Your task to perform on an android device: Open Chrome and go to settings Image 0: 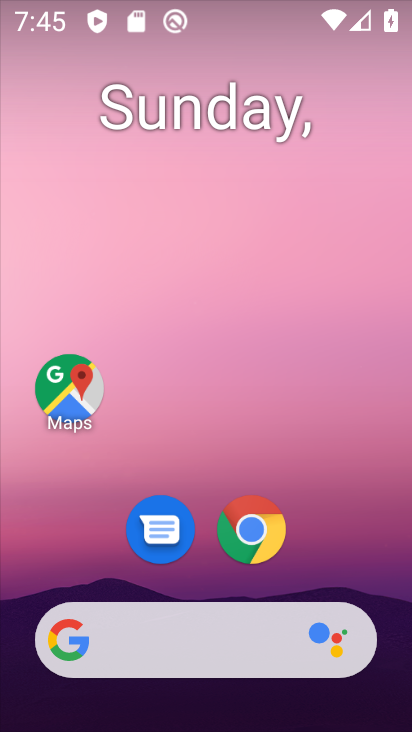
Step 0: click (279, 551)
Your task to perform on an android device: Open Chrome and go to settings Image 1: 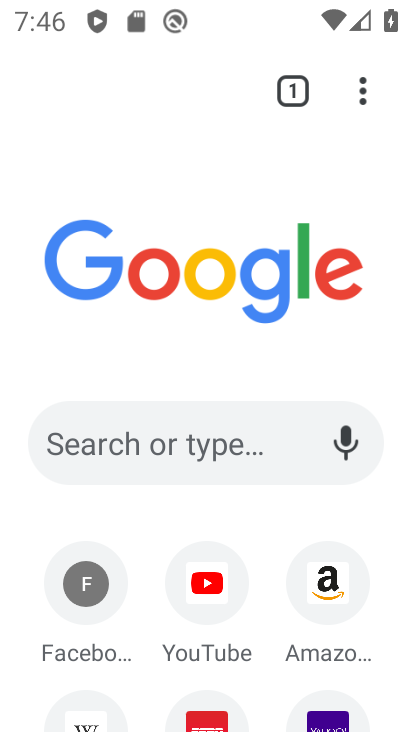
Step 1: click (377, 109)
Your task to perform on an android device: Open Chrome and go to settings Image 2: 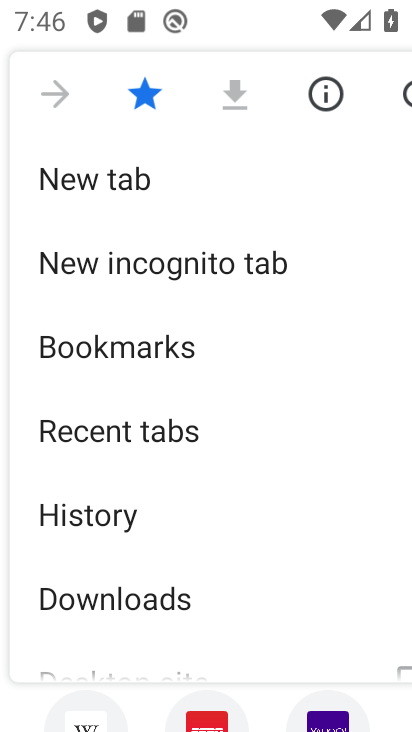
Step 2: drag from (220, 571) to (164, 296)
Your task to perform on an android device: Open Chrome and go to settings Image 3: 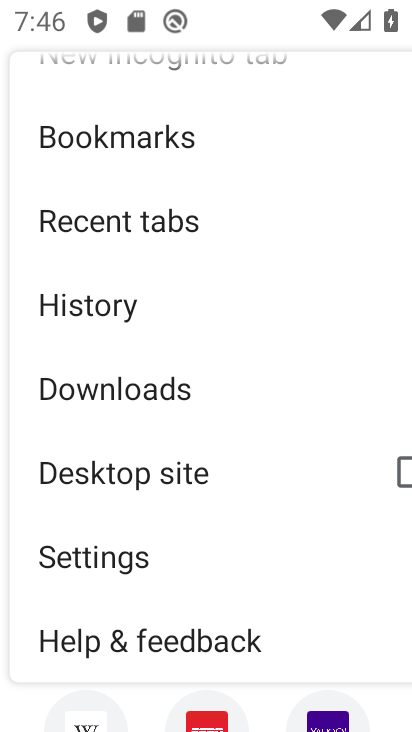
Step 3: click (219, 549)
Your task to perform on an android device: Open Chrome and go to settings Image 4: 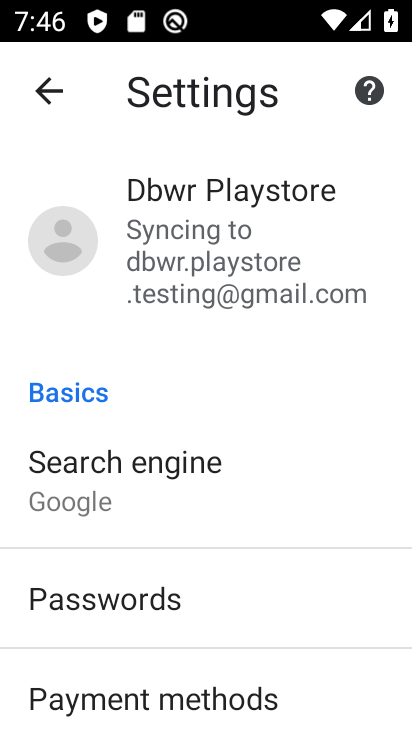
Step 4: task complete